Your task to perform on an android device: Open settings Image 0: 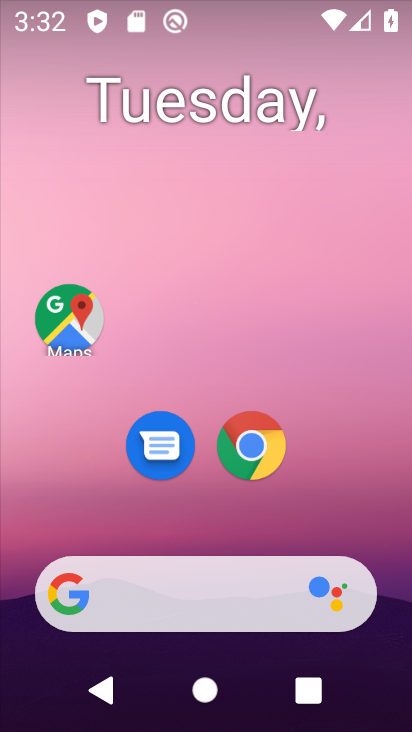
Step 0: drag from (390, 514) to (393, 296)
Your task to perform on an android device: Open settings Image 1: 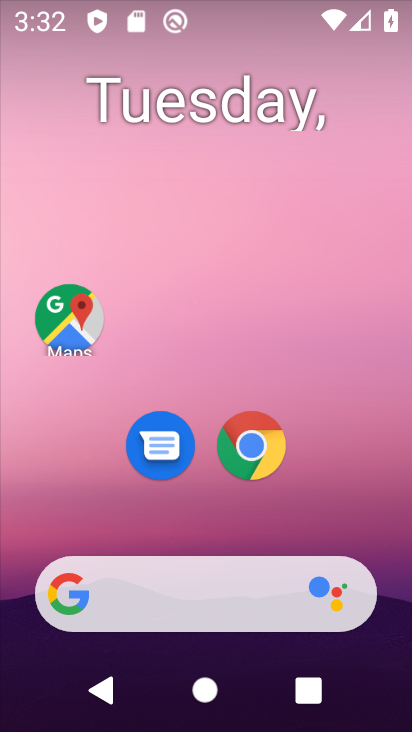
Step 1: drag from (395, 590) to (410, 233)
Your task to perform on an android device: Open settings Image 2: 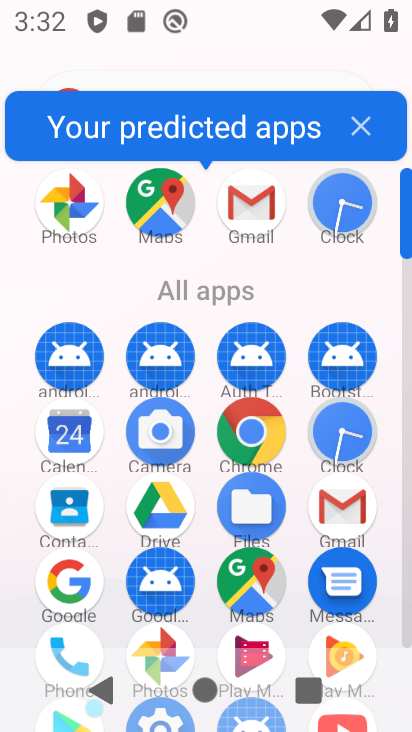
Step 2: drag from (219, 307) to (251, 151)
Your task to perform on an android device: Open settings Image 3: 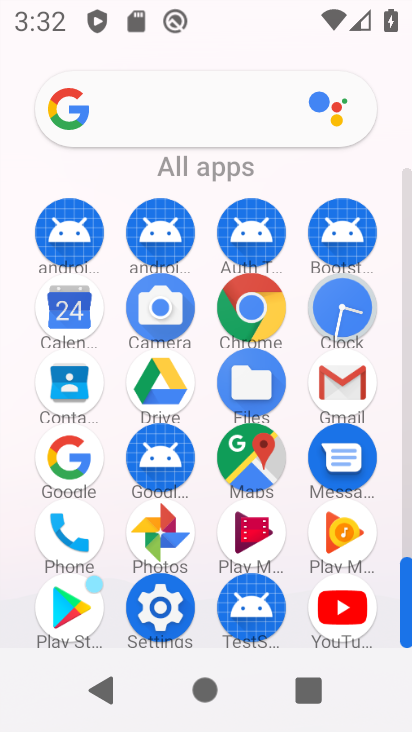
Step 3: click (156, 621)
Your task to perform on an android device: Open settings Image 4: 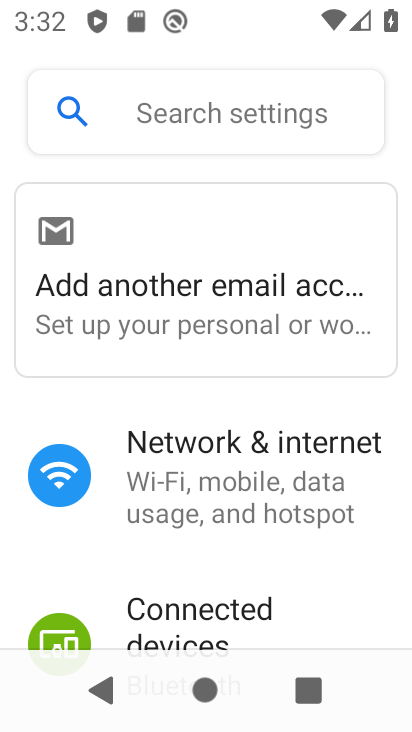
Step 4: task complete